Your task to perform on an android device: Go to Yahoo.com Image 0: 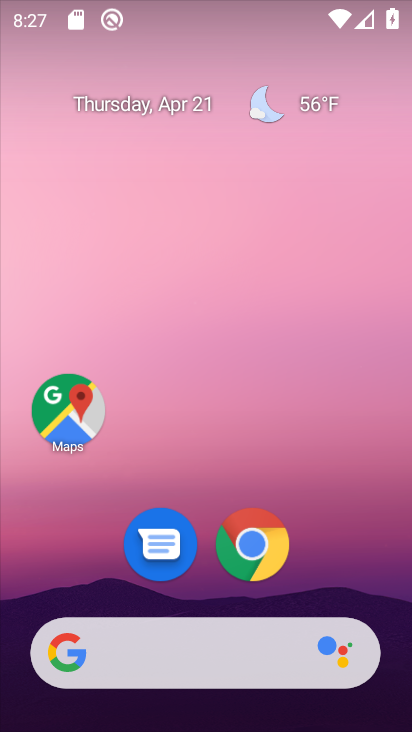
Step 0: drag from (210, 725) to (222, 124)
Your task to perform on an android device: Go to Yahoo.com Image 1: 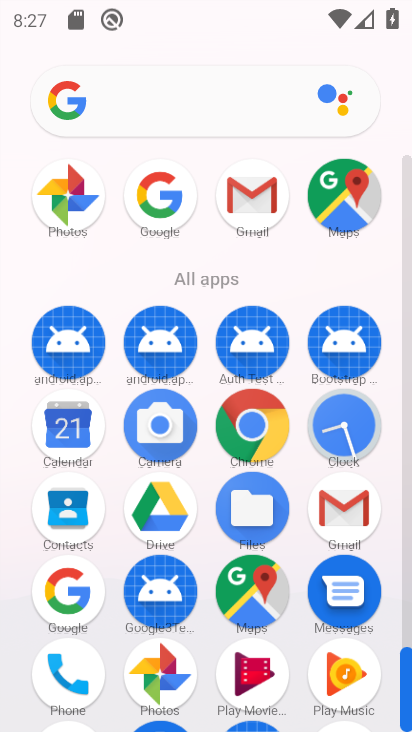
Step 1: click (252, 427)
Your task to perform on an android device: Go to Yahoo.com Image 2: 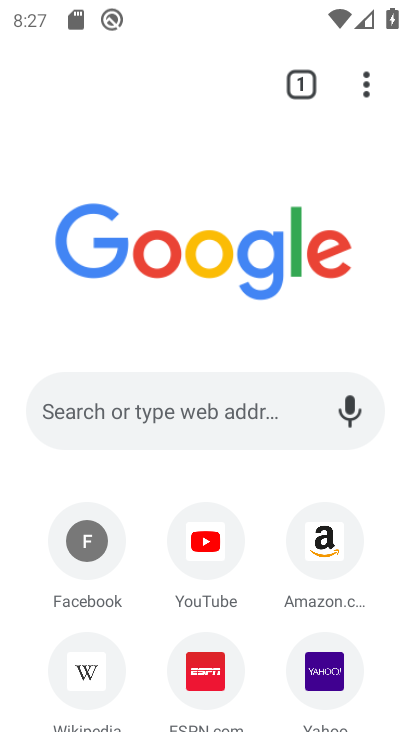
Step 2: click (246, 411)
Your task to perform on an android device: Go to Yahoo.com Image 3: 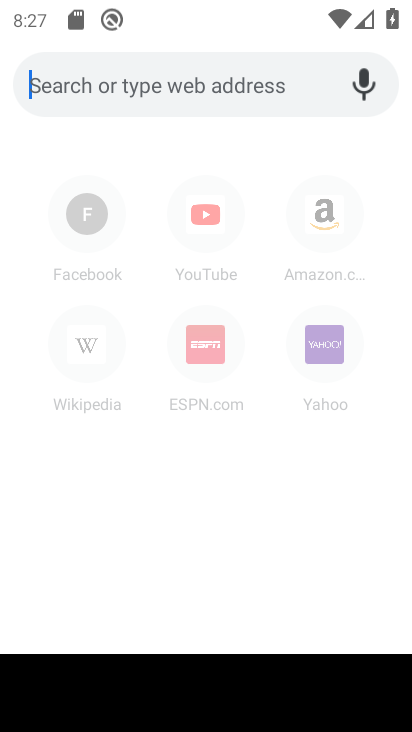
Step 3: type "Yahoo.com"
Your task to perform on an android device: Go to Yahoo.com Image 4: 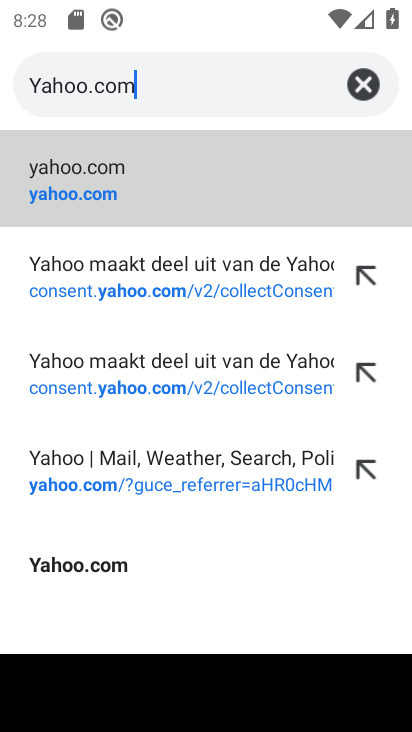
Step 4: click (78, 176)
Your task to perform on an android device: Go to Yahoo.com Image 5: 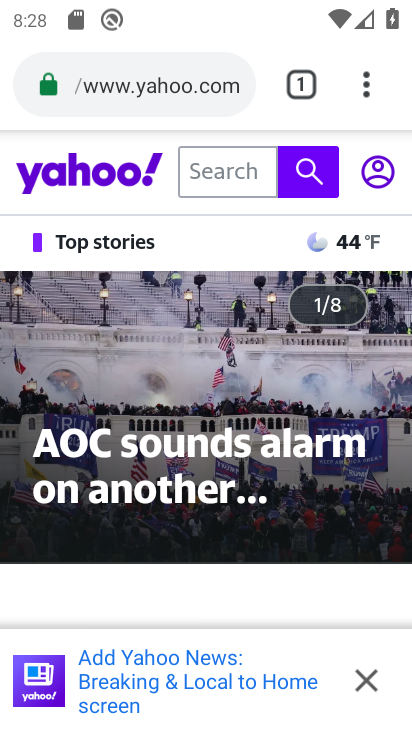
Step 5: task complete